Your task to perform on an android device: Go to internet settings Image 0: 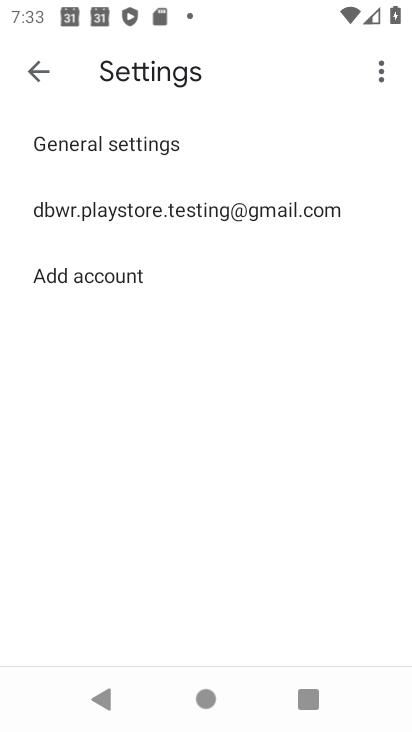
Step 0: press home button
Your task to perform on an android device: Go to internet settings Image 1: 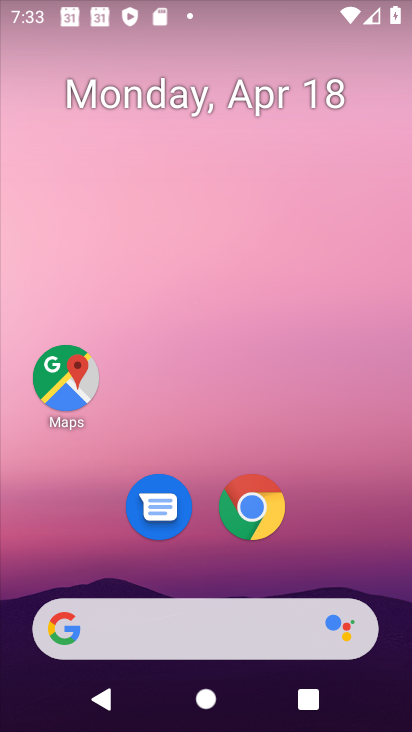
Step 1: drag from (3, 527) to (285, 22)
Your task to perform on an android device: Go to internet settings Image 2: 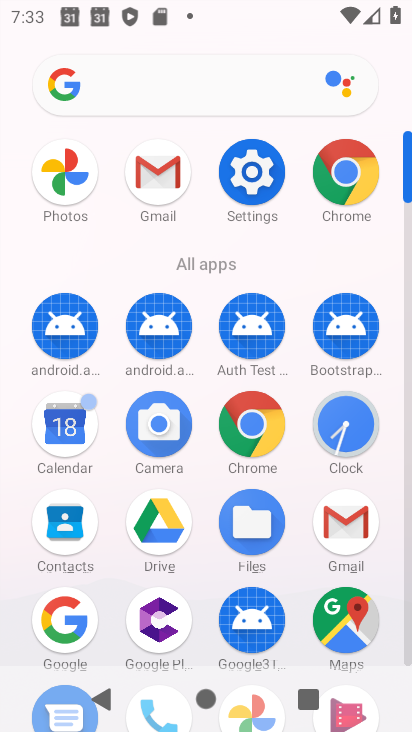
Step 2: click (251, 162)
Your task to perform on an android device: Go to internet settings Image 3: 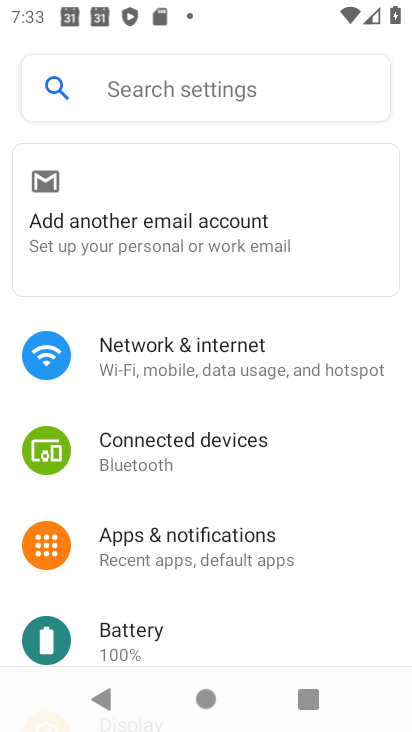
Step 3: click (181, 348)
Your task to perform on an android device: Go to internet settings Image 4: 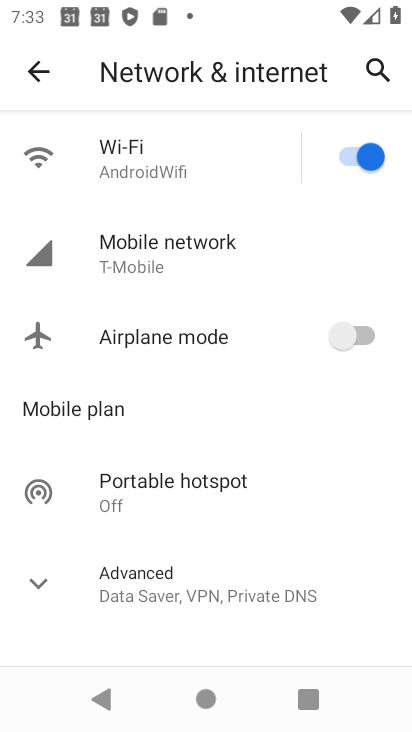
Step 4: click (47, 583)
Your task to perform on an android device: Go to internet settings Image 5: 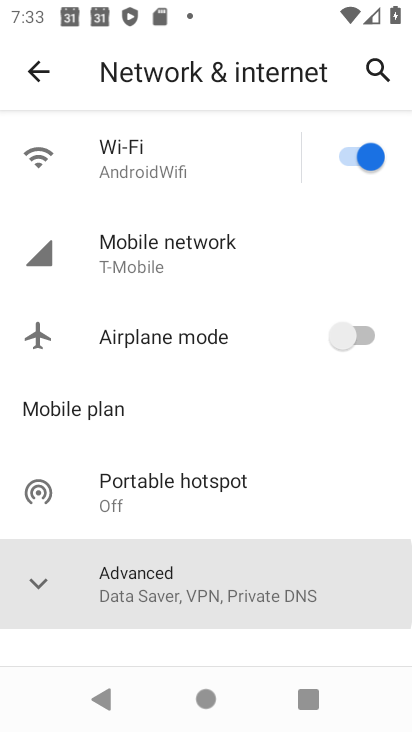
Step 5: task complete